Your task to perform on an android device: Open Google Chrome Image 0: 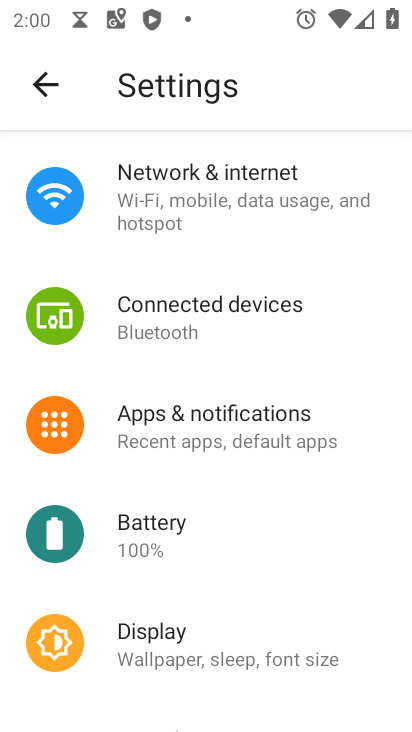
Step 0: press home button
Your task to perform on an android device: Open Google Chrome Image 1: 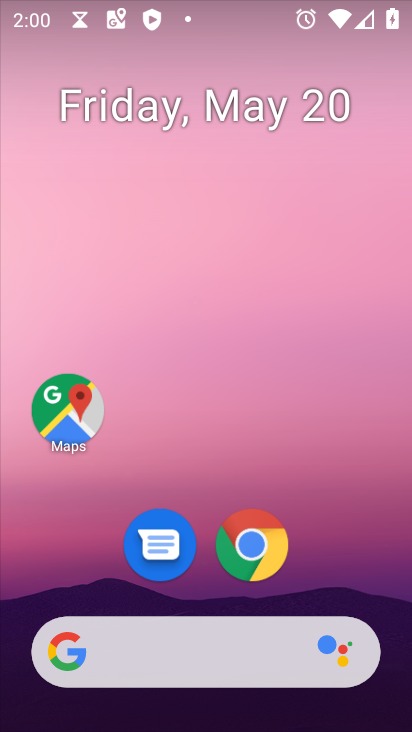
Step 1: click (247, 535)
Your task to perform on an android device: Open Google Chrome Image 2: 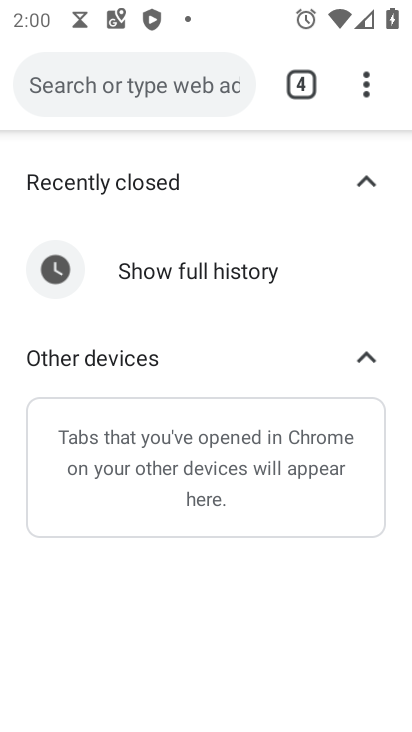
Step 2: press home button
Your task to perform on an android device: Open Google Chrome Image 3: 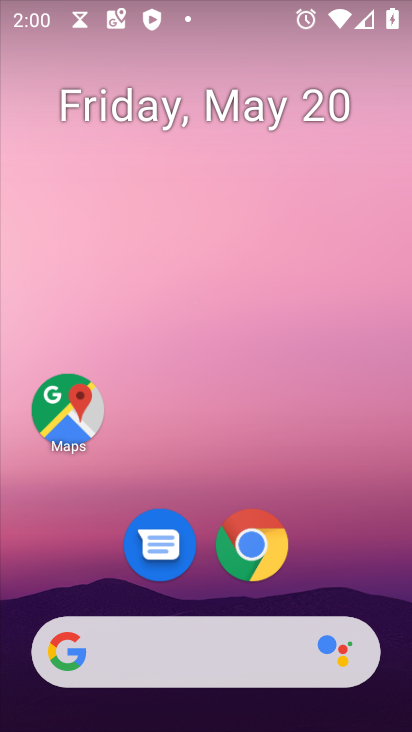
Step 3: click (250, 552)
Your task to perform on an android device: Open Google Chrome Image 4: 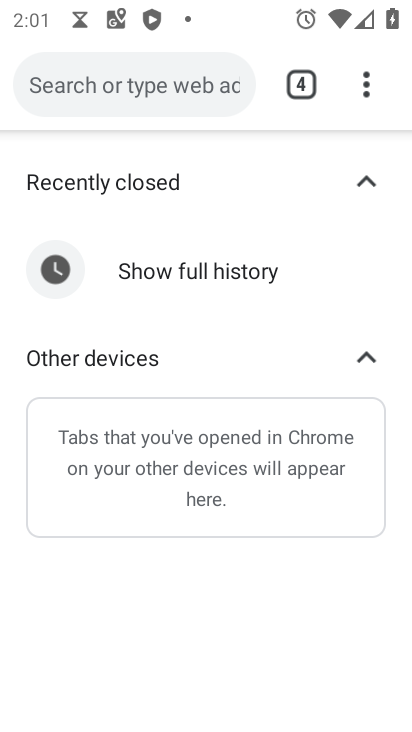
Step 4: task complete